Your task to perform on an android device: open a new tab in the chrome app Image 0: 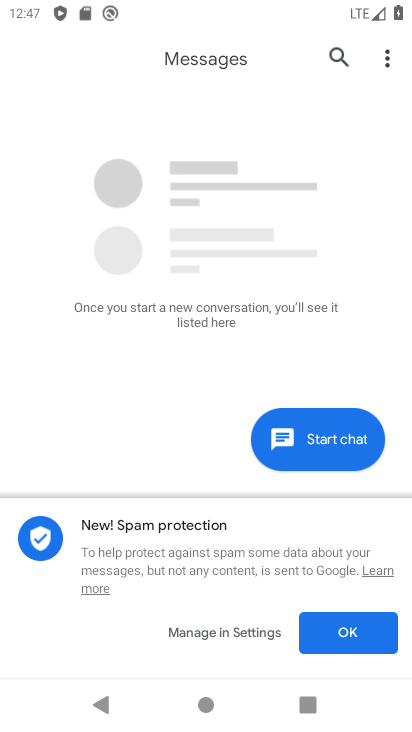
Step 0: press home button
Your task to perform on an android device: open a new tab in the chrome app Image 1: 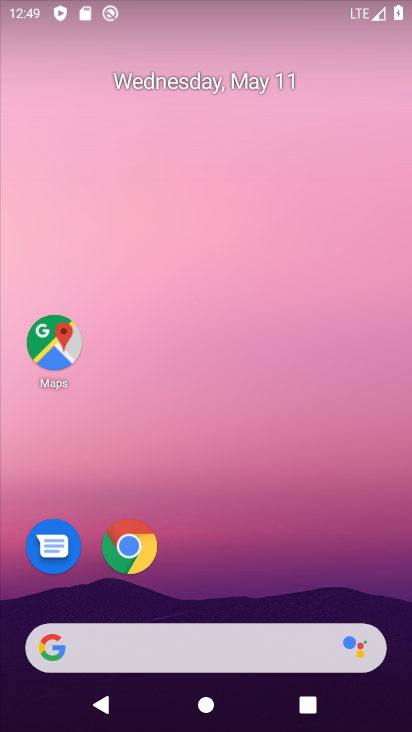
Step 1: drag from (266, 676) to (246, 308)
Your task to perform on an android device: open a new tab in the chrome app Image 2: 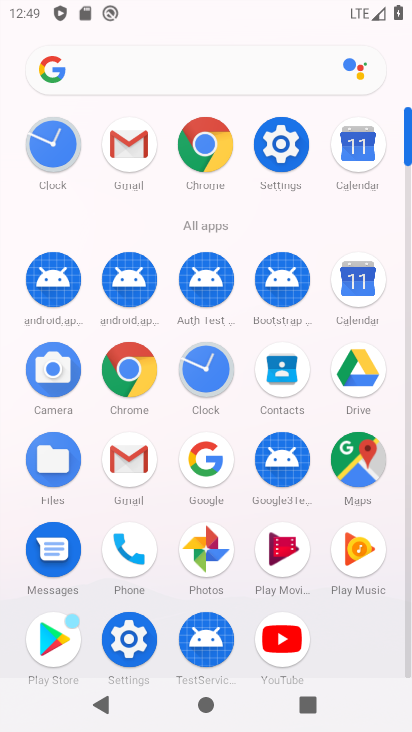
Step 2: click (134, 355)
Your task to perform on an android device: open a new tab in the chrome app Image 3: 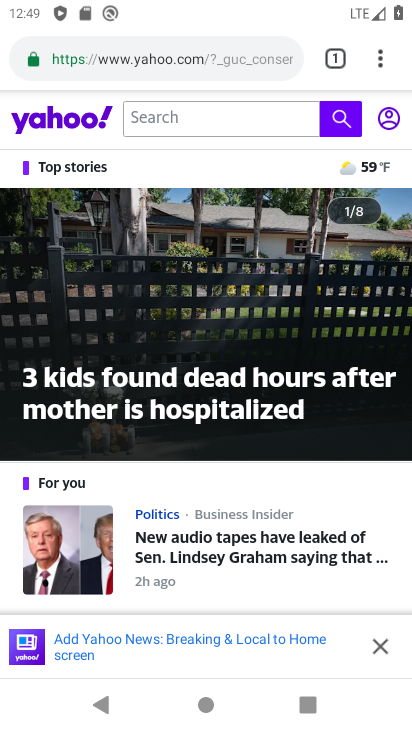
Step 3: click (381, 76)
Your task to perform on an android device: open a new tab in the chrome app Image 4: 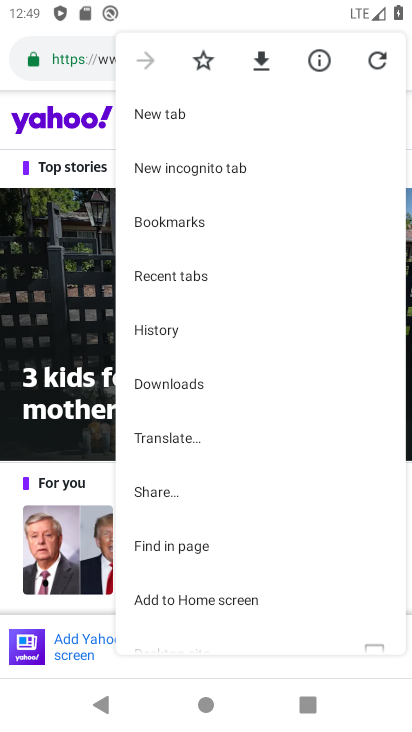
Step 4: click (162, 120)
Your task to perform on an android device: open a new tab in the chrome app Image 5: 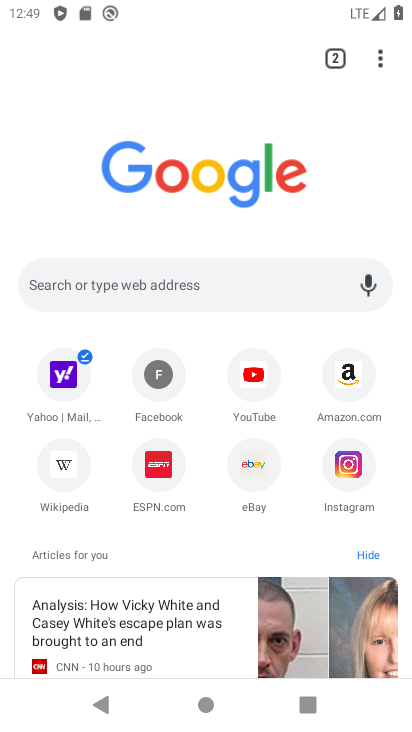
Step 5: task complete